Your task to perform on an android device: Open the web browser Image 0: 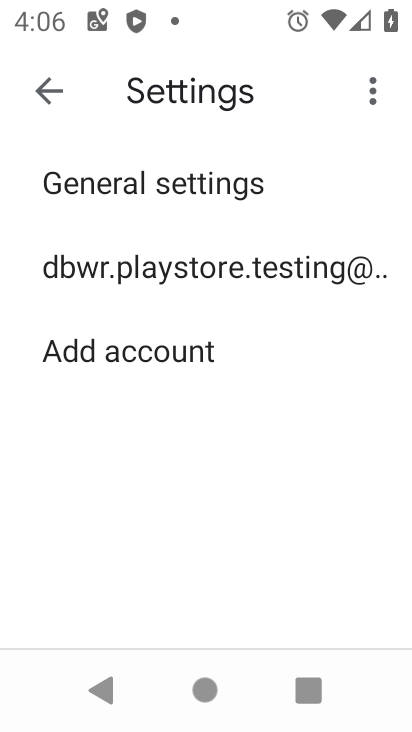
Step 0: press home button
Your task to perform on an android device: Open the web browser Image 1: 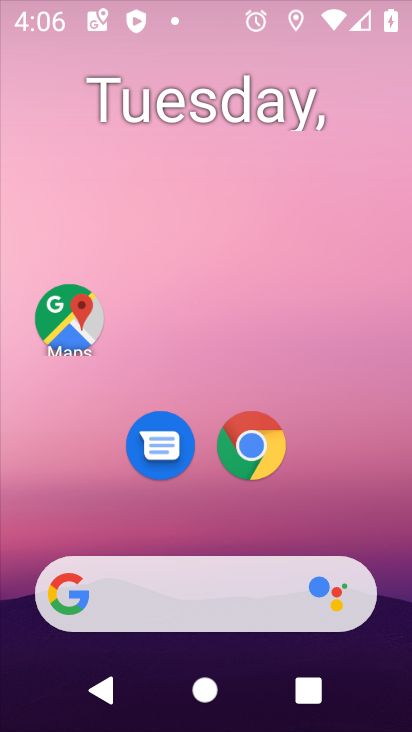
Step 1: drag from (238, 506) to (241, 62)
Your task to perform on an android device: Open the web browser Image 2: 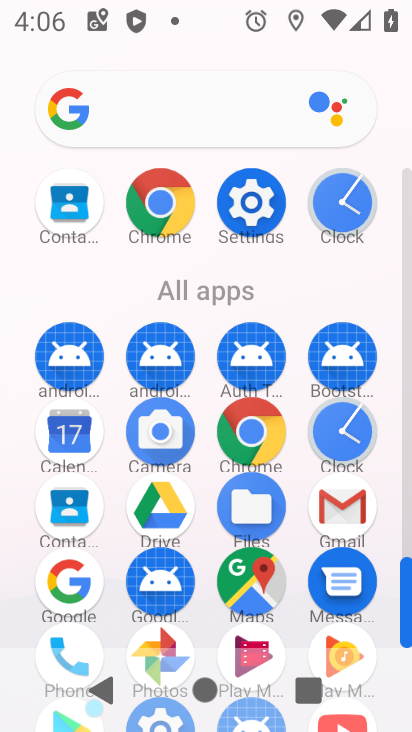
Step 2: click (251, 440)
Your task to perform on an android device: Open the web browser Image 3: 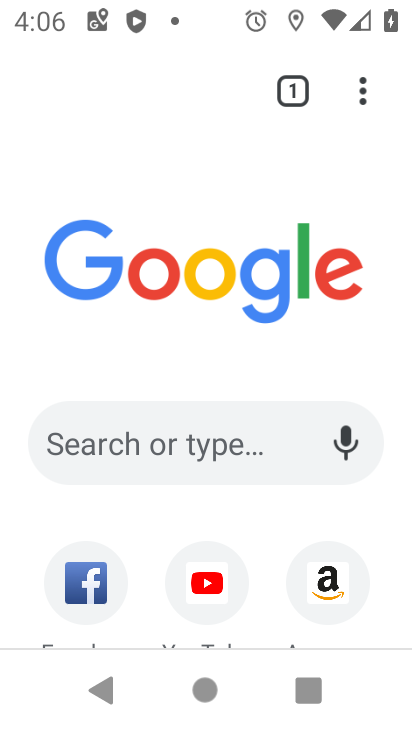
Step 3: task complete